Your task to perform on an android device: toggle airplane mode Image 0: 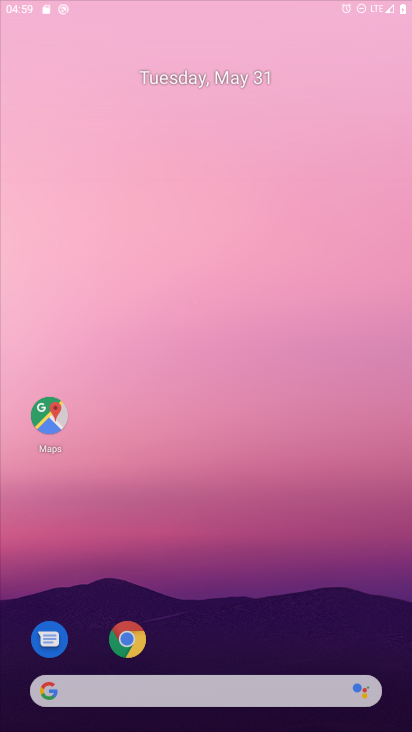
Step 0: click (205, 127)
Your task to perform on an android device: toggle airplane mode Image 1: 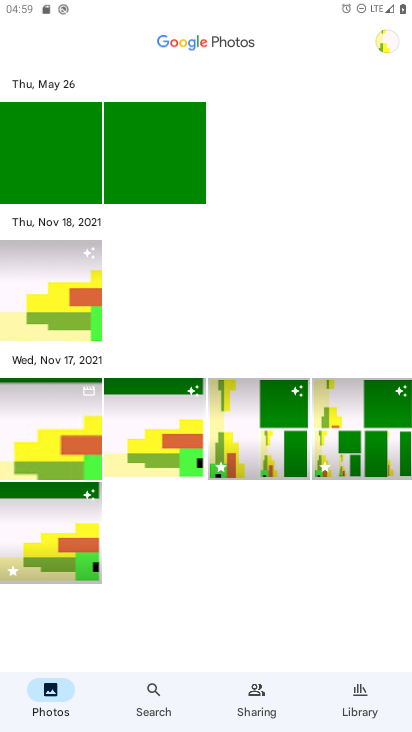
Step 1: press home button
Your task to perform on an android device: toggle airplane mode Image 2: 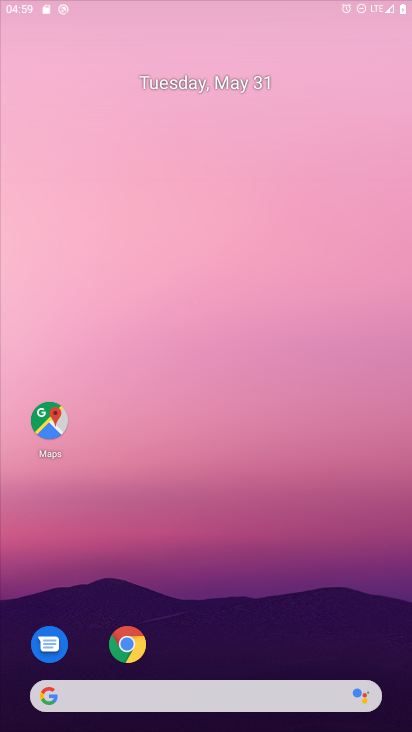
Step 2: drag from (263, 570) to (245, 81)
Your task to perform on an android device: toggle airplane mode Image 3: 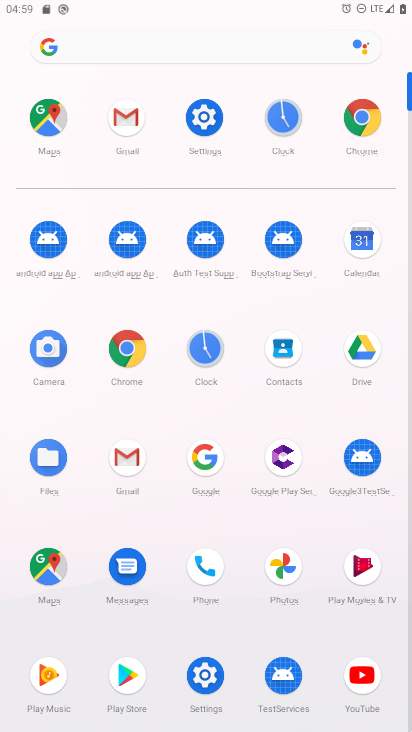
Step 3: click (212, 119)
Your task to perform on an android device: toggle airplane mode Image 4: 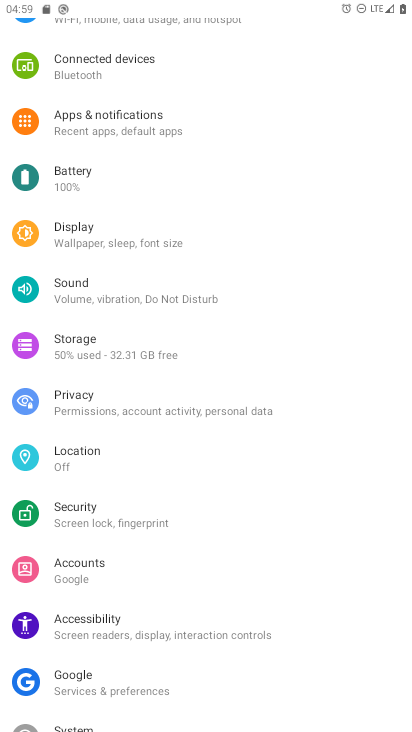
Step 4: drag from (208, 117) to (211, 493)
Your task to perform on an android device: toggle airplane mode Image 5: 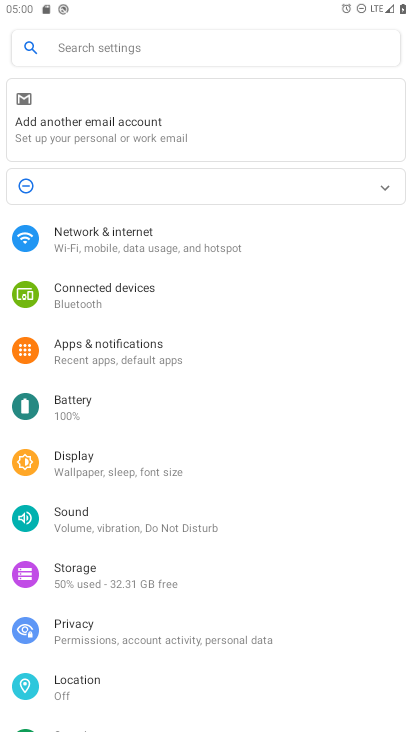
Step 5: click (137, 244)
Your task to perform on an android device: toggle airplane mode Image 6: 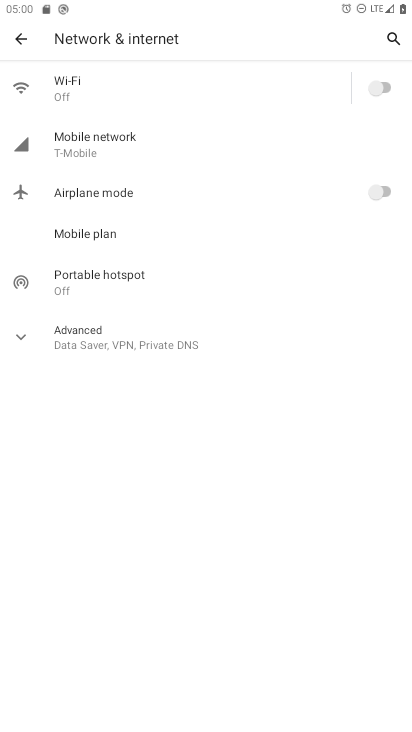
Step 6: click (379, 189)
Your task to perform on an android device: toggle airplane mode Image 7: 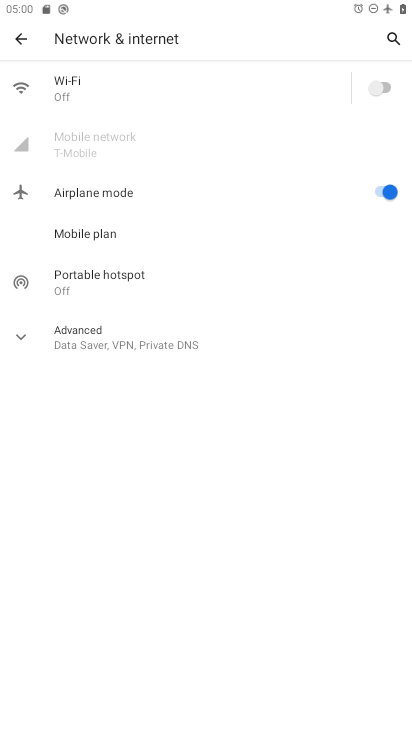
Step 7: task complete